Your task to perform on an android device: Open display settings Image 0: 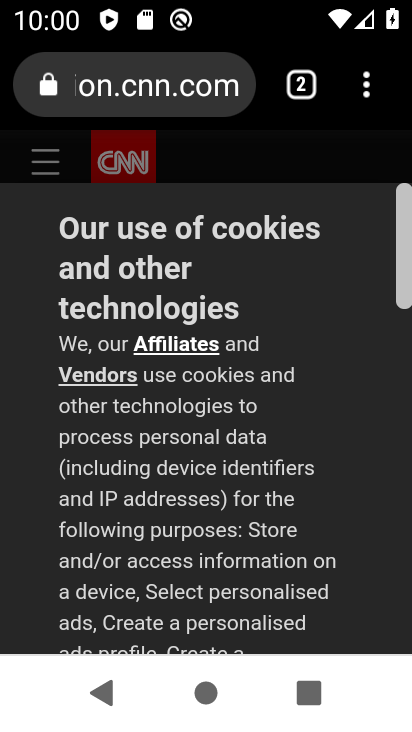
Step 0: press home button
Your task to perform on an android device: Open display settings Image 1: 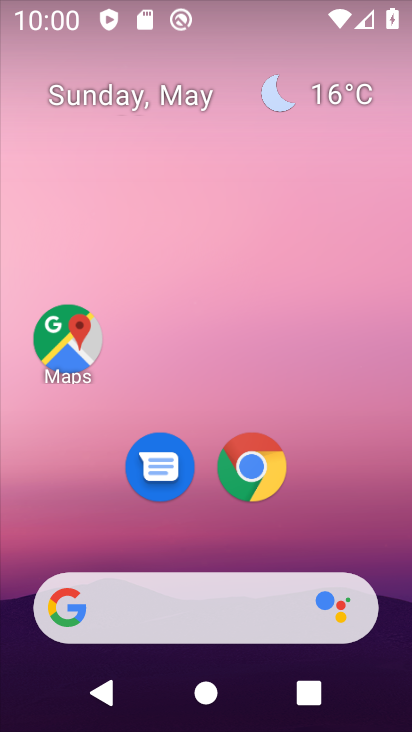
Step 1: drag from (378, 456) to (360, 77)
Your task to perform on an android device: Open display settings Image 2: 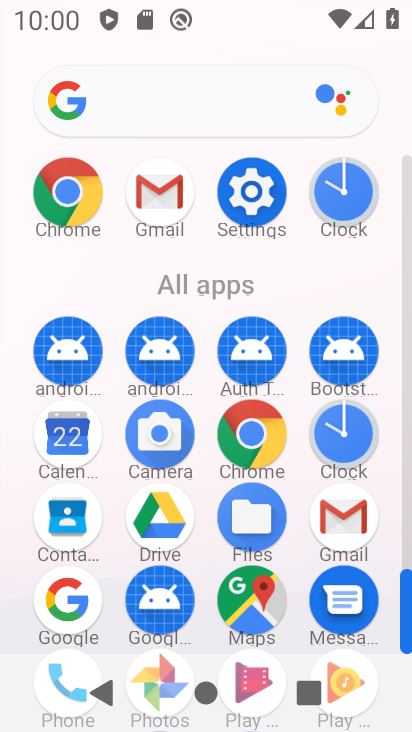
Step 2: click (239, 206)
Your task to perform on an android device: Open display settings Image 3: 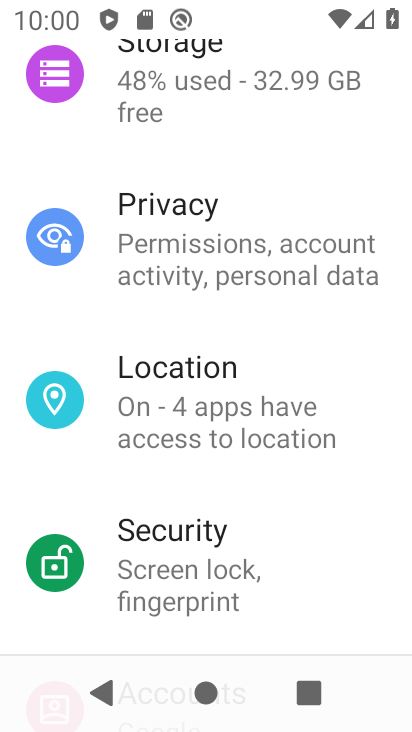
Step 3: drag from (324, 182) to (317, 505)
Your task to perform on an android device: Open display settings Image 4: 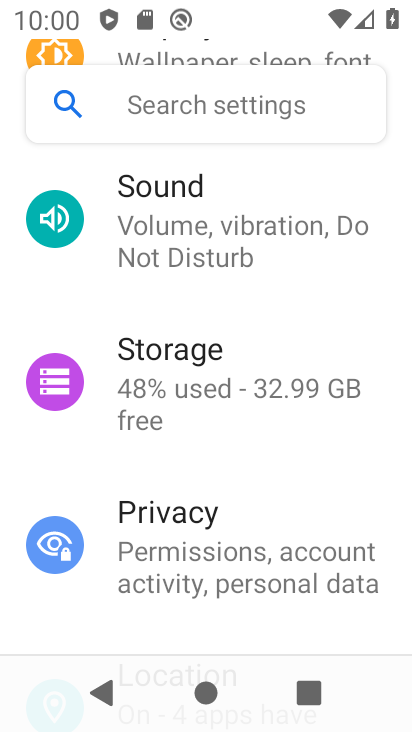
Step 4: drag from (304, 504) to (320, 198)
Your task to perform on an android device: Open display settings Image 5: 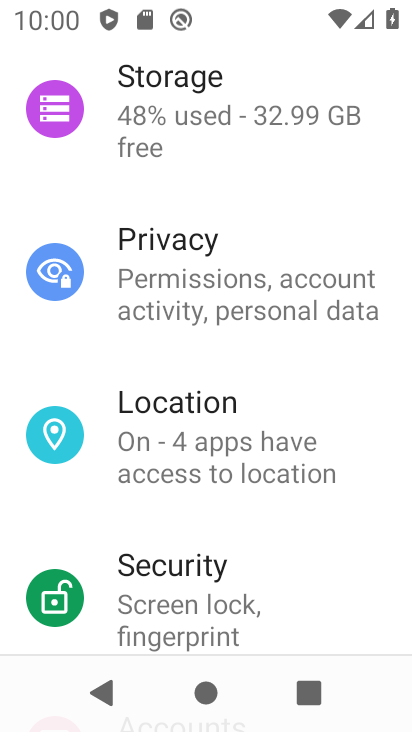
Step 5: drag from (301, 530) to (302, 176)
Your task to perform on an android device: Open display settings Image 6: 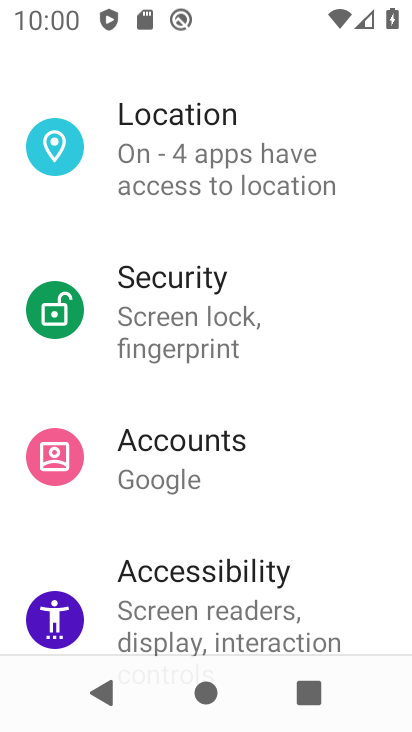
Step 6: drag from (317, 497) to (291, 190)
Your task to perform on an android device: Open display settings Image 7: 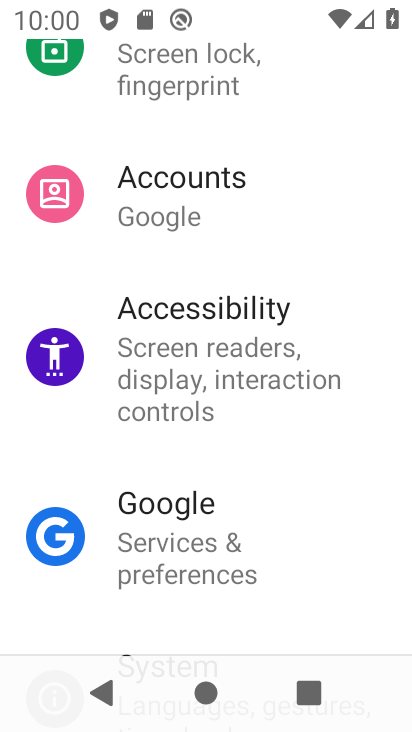
Step 7: drag from (313, 80) to (287, 672)
Your task to perform on an android device: Open display settings Image 8: 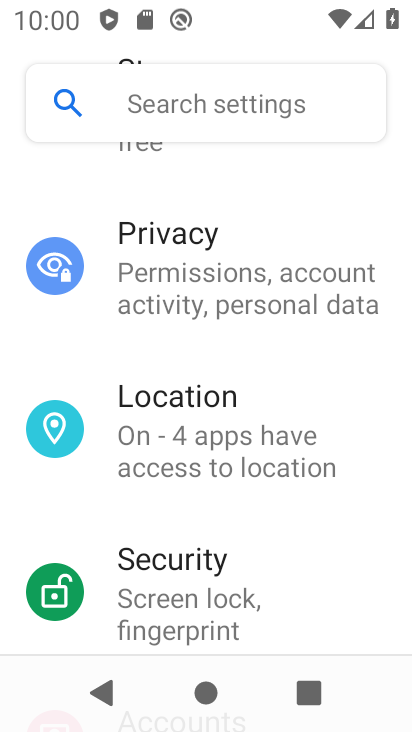
Step 8: drag from (313, 211) to (152, 605)
Your task to perform on an android device: Open display settings Image 9: 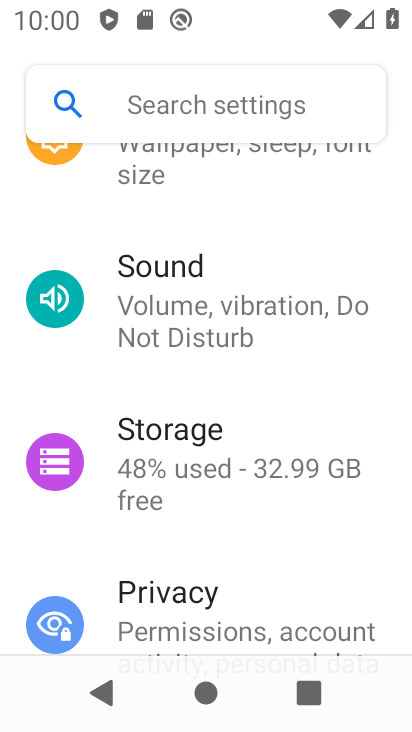
Step 9: drag from (222, 207) to (109, 664)
Your task to perform on an android device: Open display settings Image 10: 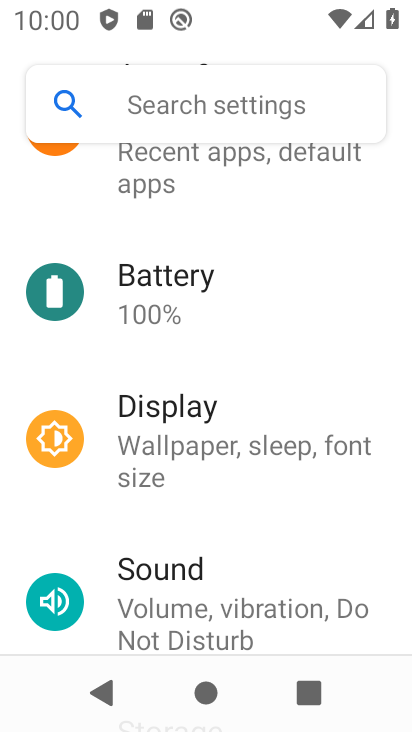
Step 10: drag from (245, 238) to (101, 621)
Your task to perform on an android device: Open display settings Image 11: 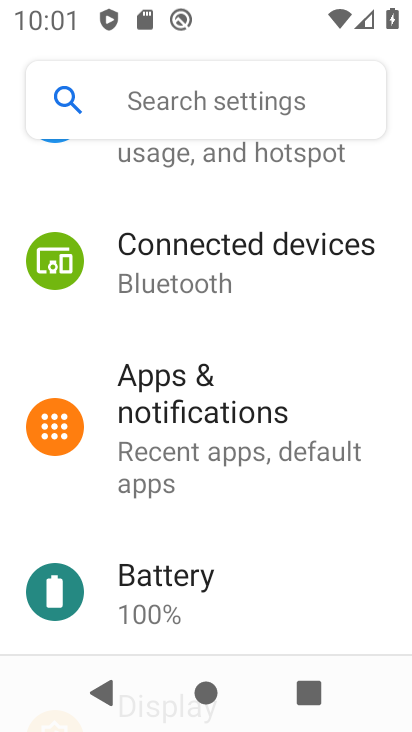
Step 11: drag from (128, 578) to (228, 311)
Your task to perform on an android device: Open display settings Image 12: 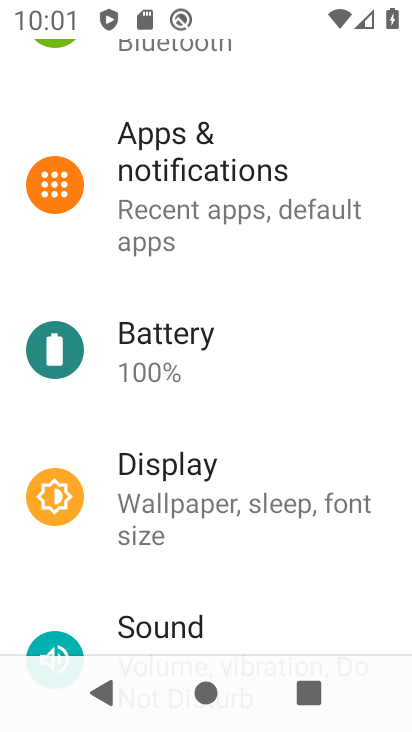
Step 12: click (196, 463)
Your task to perform on an android device: Open display settings Image 13: 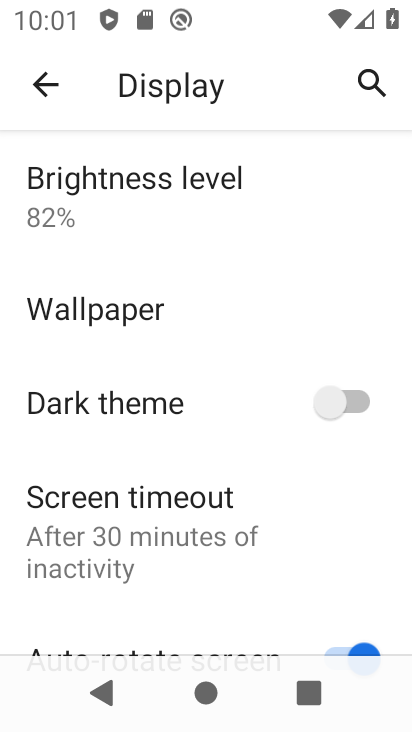
Step 13: drag from (196, 467) to (223, 184)
Your task to perform on an android device: Open display settings Image 14: 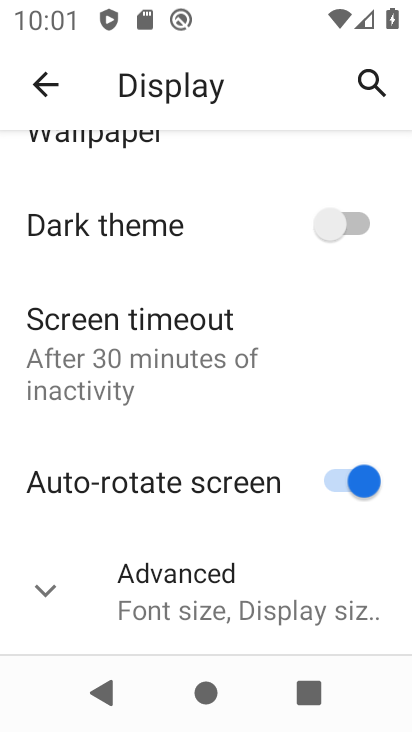
Step 14: click (58, 577)
Your task to perform on an android device: Open display settings Image 15: 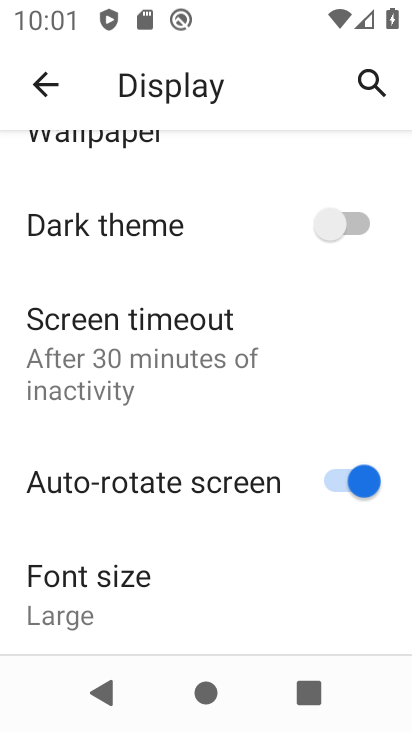
Step 15: task complete